Your task to perform on an android device: turn off data saver in the chrome app Image 0: 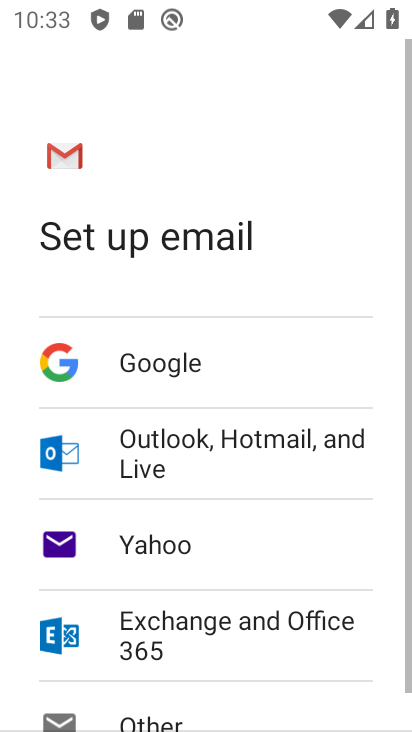
Step 0: press home button
Your task to perform on an android device: turn off data saver in the chrome app Image 1: 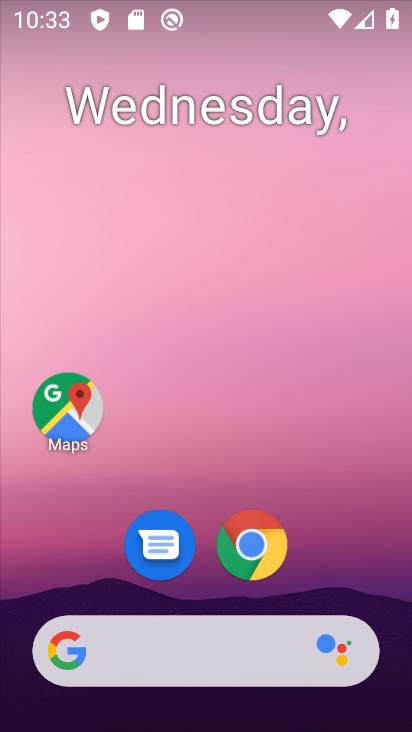
Step 1: click (259, 533)
Your task to perform on an android device: turn off data saver in the chrome app Image 2: 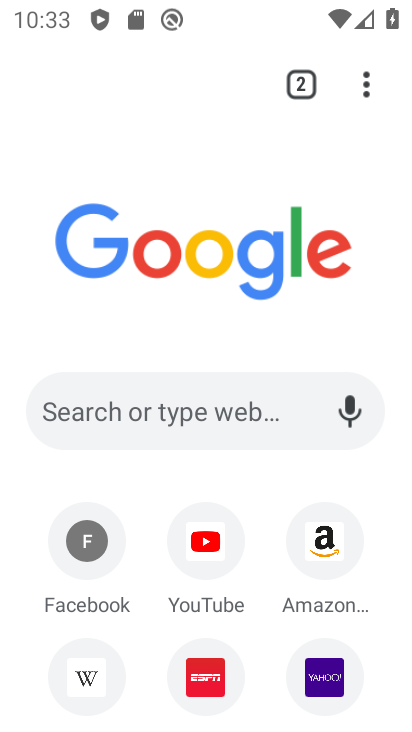
Step 2: click (369, 83)
Your task to perform on an android device: turn off data saver in the chrome app Image 3: 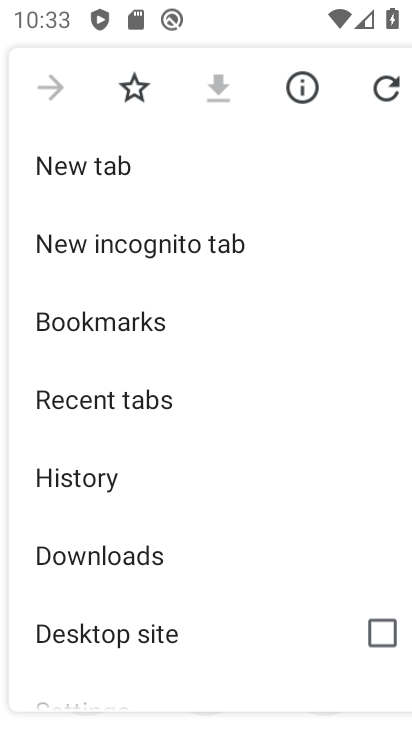
Step 3: drag from (167, 665) to (214, 133)
Your task to perform on an android device: turn off data saver in the chrome app Image 4: 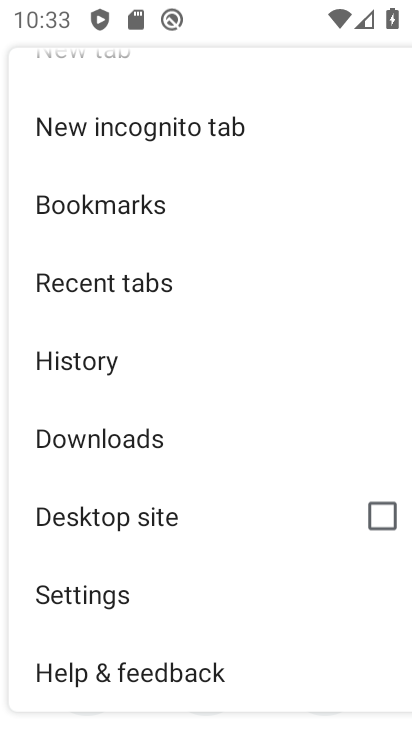
Step 4: click (115, 582)
Your task to perform on an android device: turn off data saver in the chrome app Image 5: 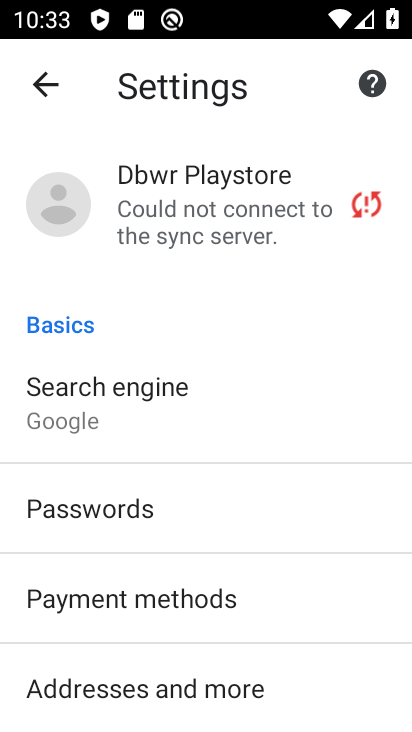
Step 5: drag from (267, 675) to (234, 176)
Your task to perform on an android device: turn off data saver in the chrome app Image 6: 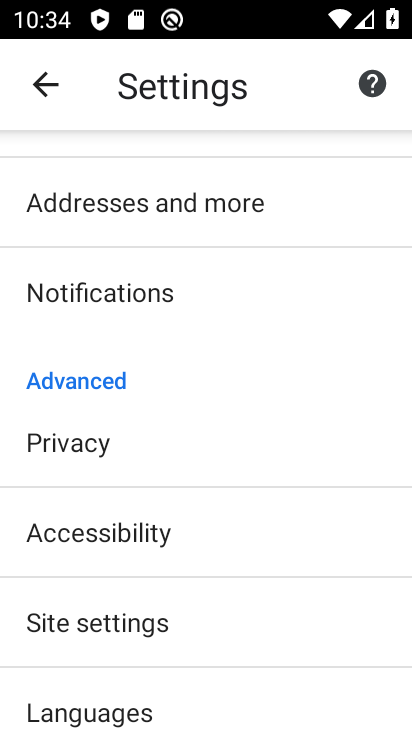
Step 6: drag from (167, 690) to (177, 164)
Your task to perform on an android device: turn off data saver in the chrome app Image 7: 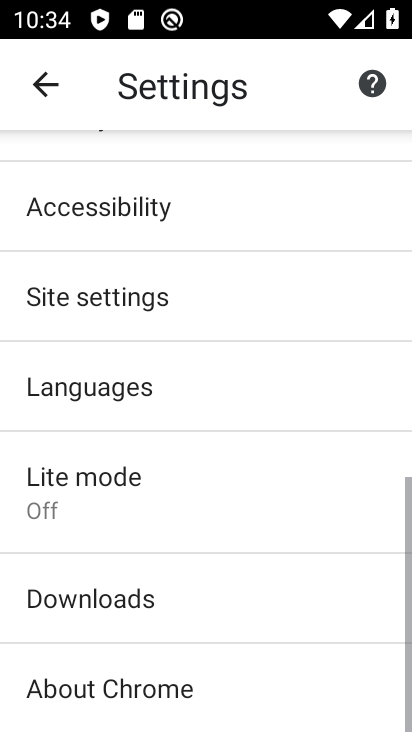
Step 7: click (160, 501)
Your task to perform on an android device: turn off data saver in the chrome app Image 8: 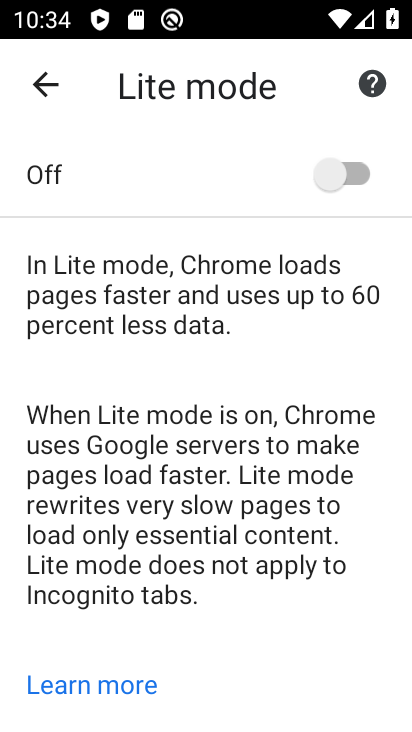
Step 8: task complete